Your task to perform on an android device: Show me recent news Image 0: 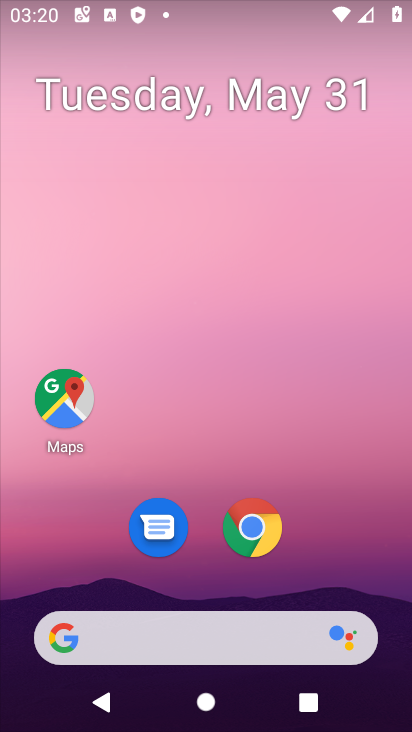
Step 0: drag from (0, 303) to (404, 313)
Your task to perform on an android device: Show me recent news Image 1: 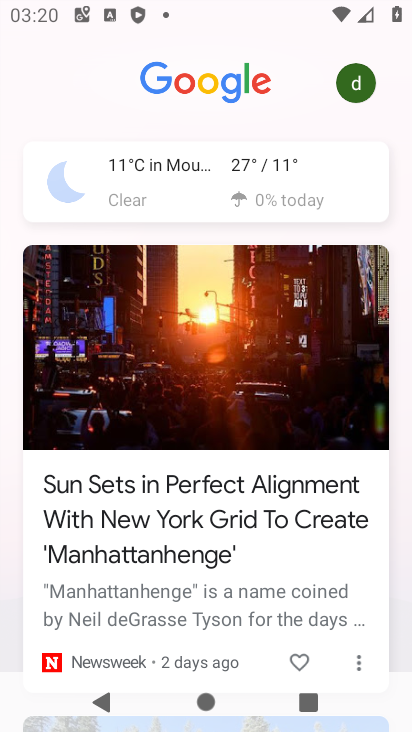
Step 1: task complete